Your task to perform on an android device: Open sound settings Image 0: 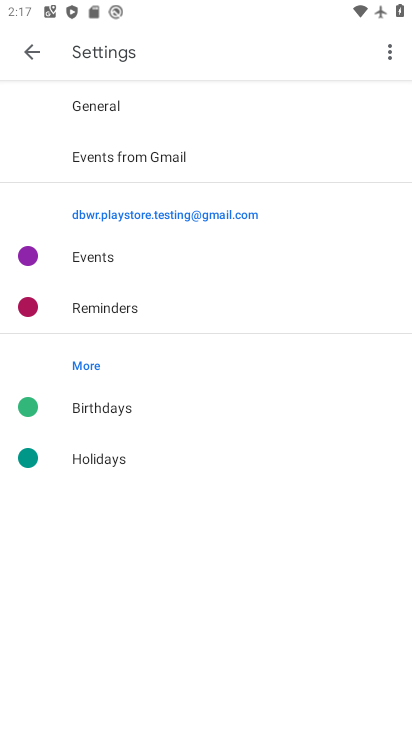
Step 0: press home button
Your task to perform on an android device: Open sound settings Image 1: 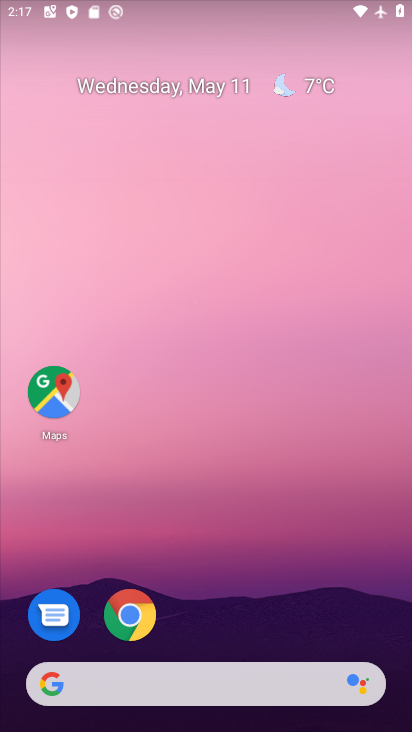
Step 1: drag from (288, 623) to (328, 104)
Your task to perform on an android device: Open sound settings Image 2: 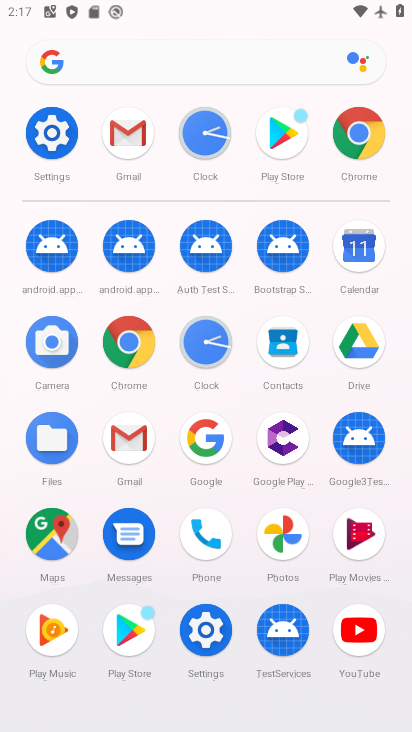
Step 2: click (49, 121)
Your task to perform on an android device: Open sound settings Image 3: 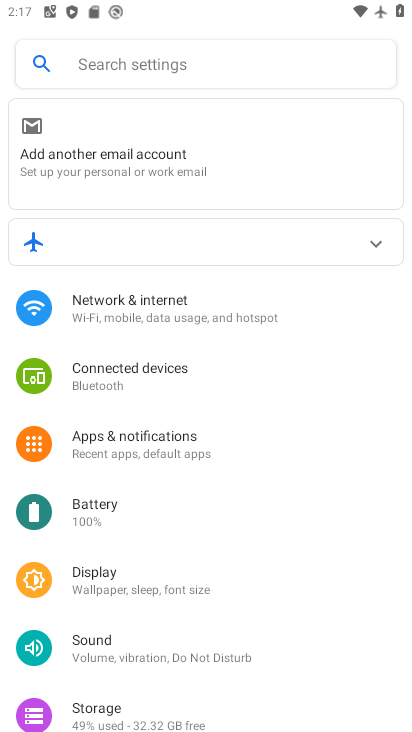
Step 3: click (151, 649)
Your task to perform on an android device: Open sound settings Image 4: 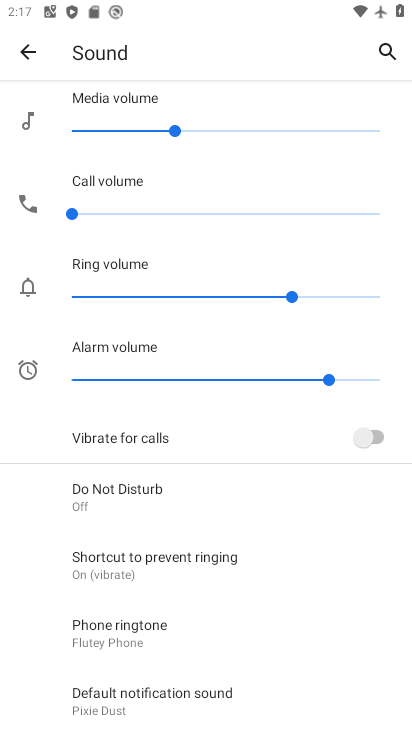
Step 4: task complete